Your task to perform on an android device: toggle notification dots Image 0: 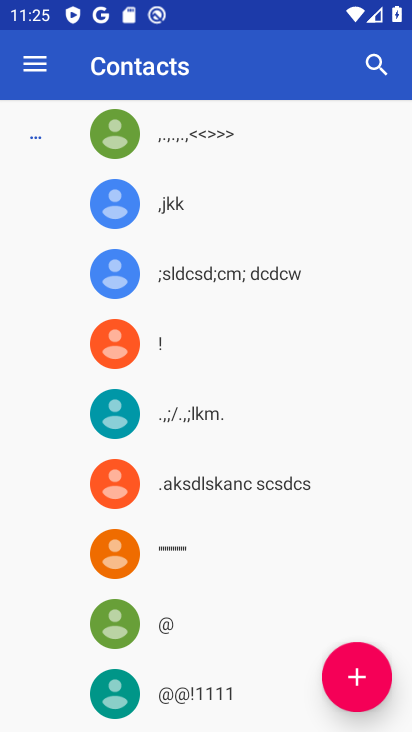
Step 0: press back button
Your task to perform on an android device: toggle notification dots Image 1: 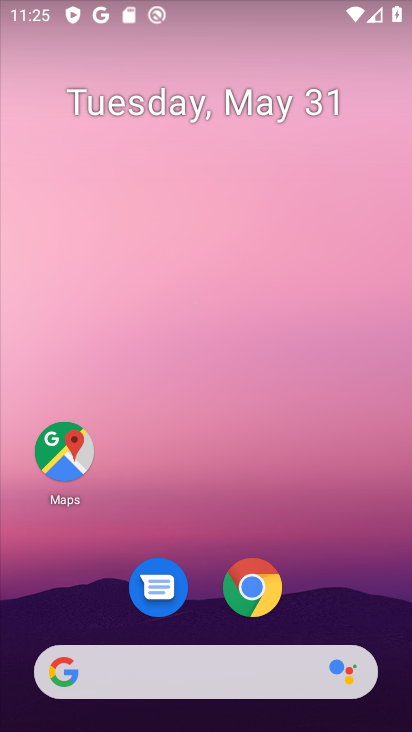
Step 1: drag from (320, 602) to (217, 118)
Your task to perform on an android device: toggle notification dots Image 2: 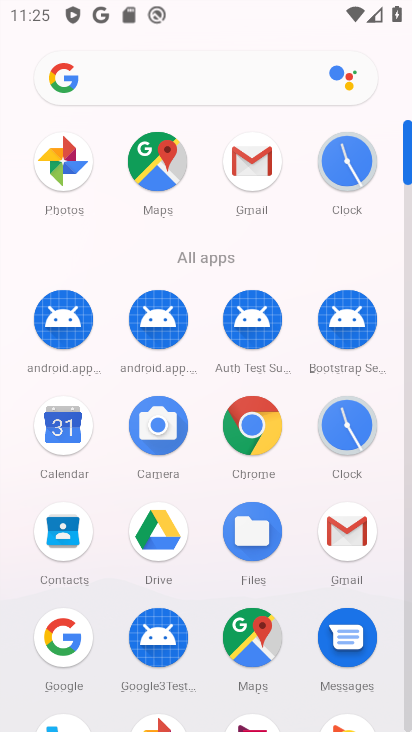
Step 2: drag from (109, 261) to (132, 71)
Your task to perform on an android device: toggle notification dots Image 3: 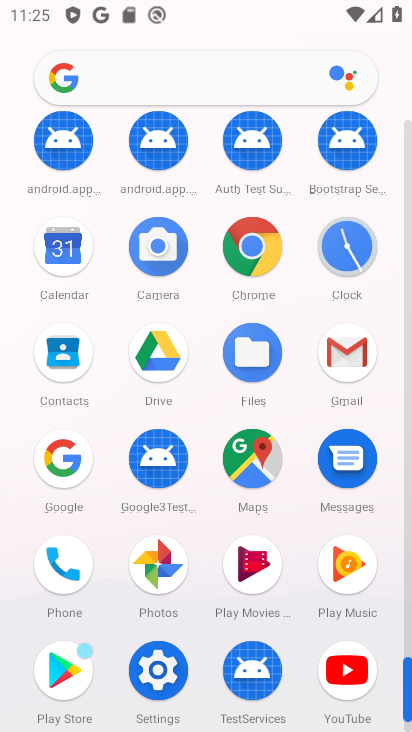
Step 3: drag from (114, 287) to (129, 142)
Your task to perform on an android device: toggle notification dots Image 4: 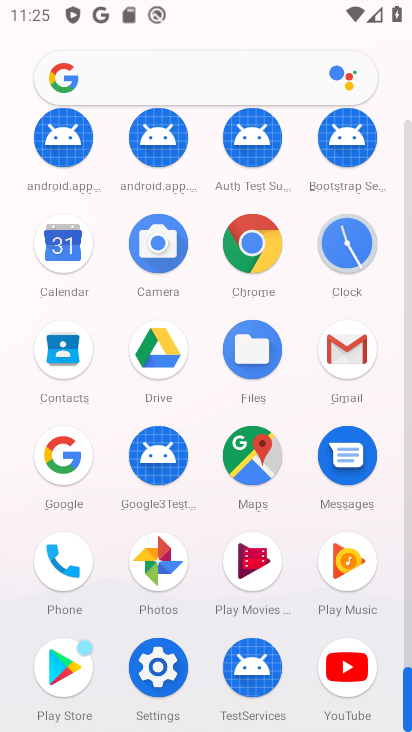
Step 4: click (158, 665)
Your task to perform on an android device: toggle notification dots Image 5: 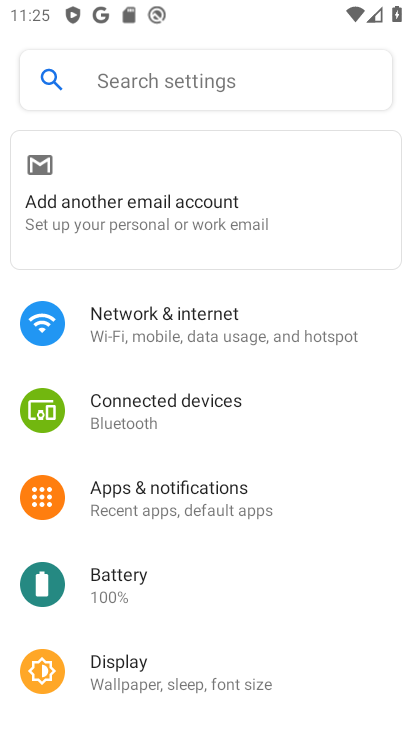
Step 5: click (216, 487)
Your task to perform on an android device: toggle notification dots Image 6: 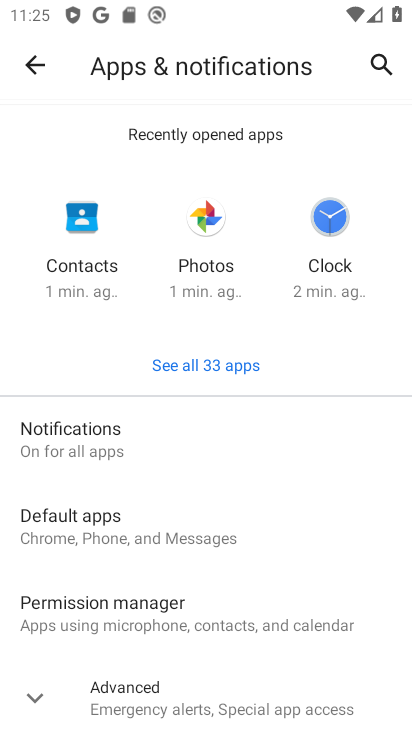
Step 6: click (80, 428)
Your task to perform on an android device: toggle notification dots Image 7: 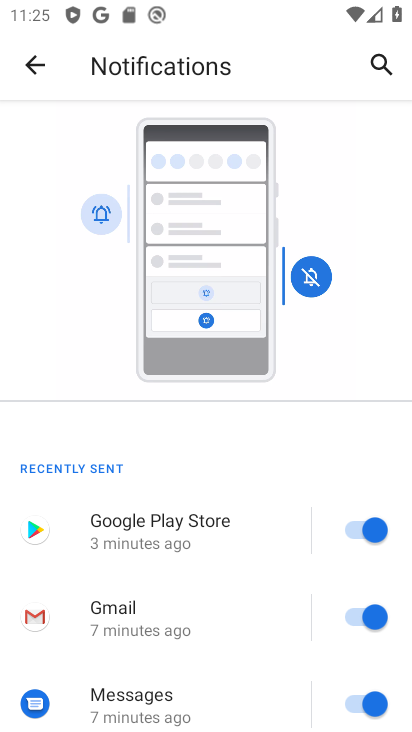
Step 7: drag from (165, 575) to (139, 440)
Your task to perform on an android device: toggle notification dots Image 8: 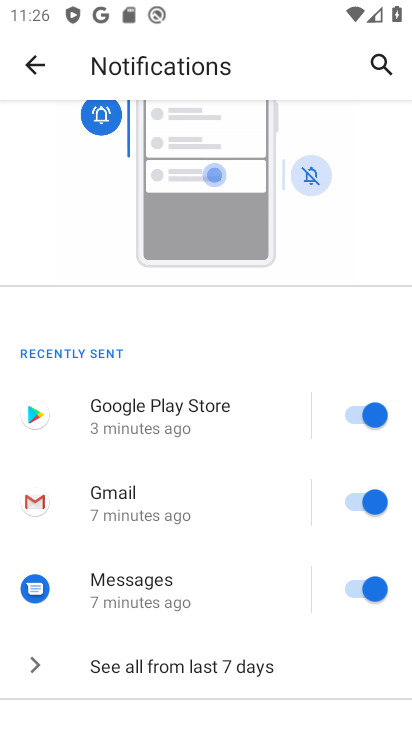
Step 8: drag from (111, 622) to (148, 444)
Your task to perform on an android device: toggle notification dots Image 9: 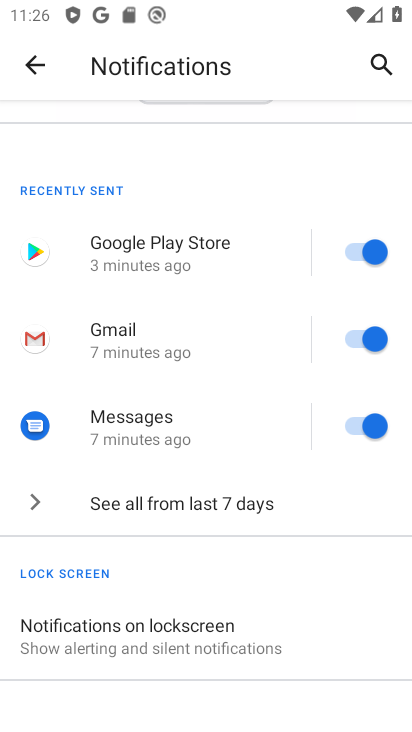
Step 9: drag from (148, 596) to (129, 462)
Your task to perform on an android device: toggle notification dots Image 10: 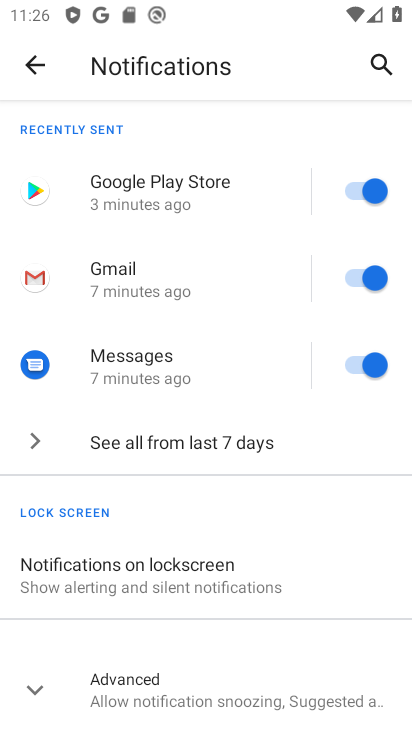
Step 10: click (162, 691)
Your task to perform on an android device: toggle notification dots Image 11: 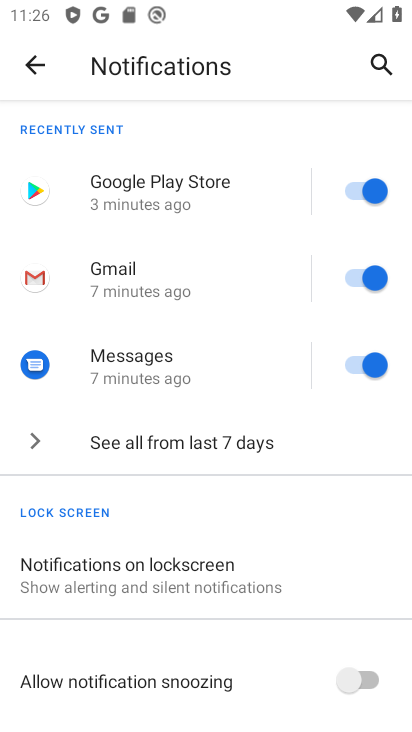
Step 11: drag from (167, 660) to (144, 491)
Your task to perform on an android device: toggle notification dots Image 12: 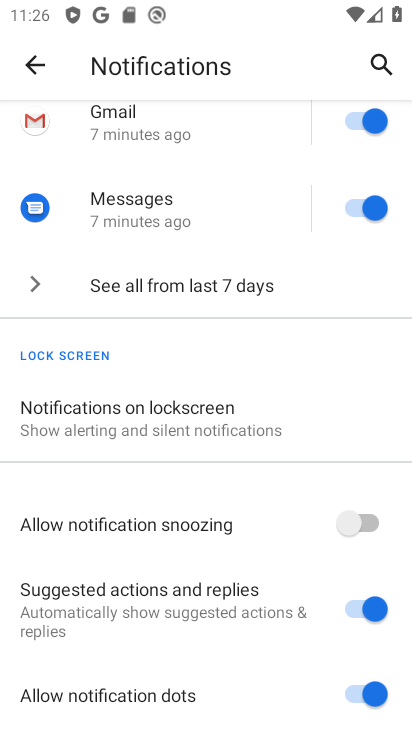
Step 12: drag from (162, 658) to (195, 549)
Your task to perform on an android device: toggle notification dots Image 13: 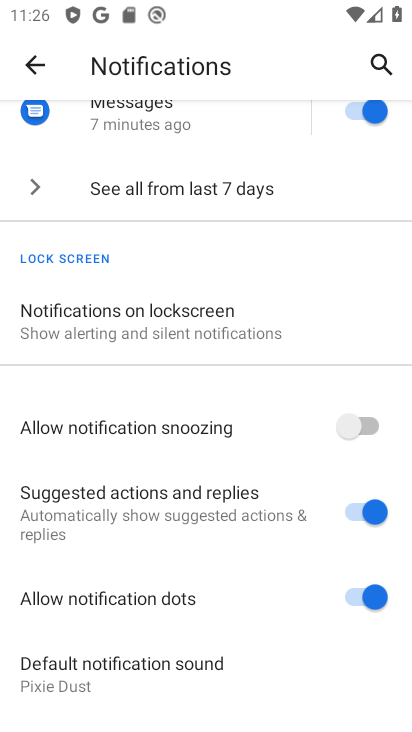
Step 13: click (366, 599)
Your task to perform on an android device: toggle notification dots Image 14: 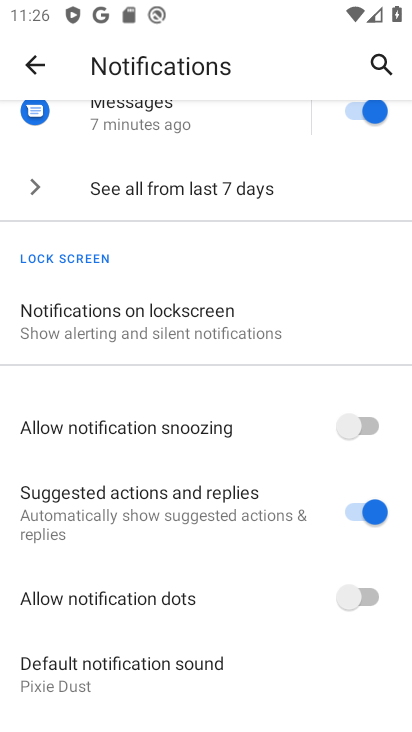
Step 14: task complete